Your task to perform on an android device: turn off picture-in-picture Image 0: 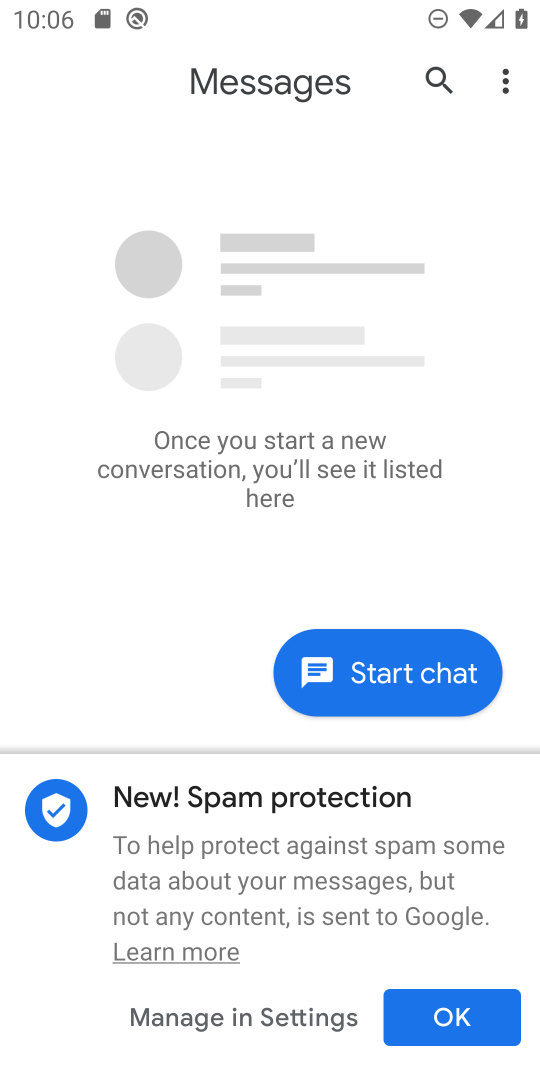
Step 0: press home button
Your task to perform on an android device: turn off picture-in-picture Image 1: 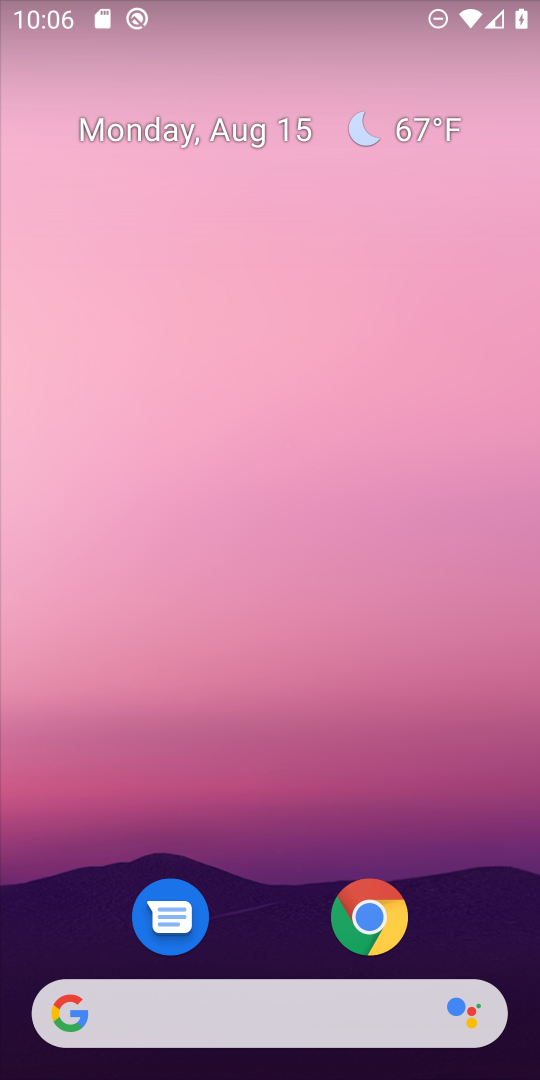
Step 1: click (398, 912)
Your task to perform on an android device: turn off picture-in-picture Image 2: 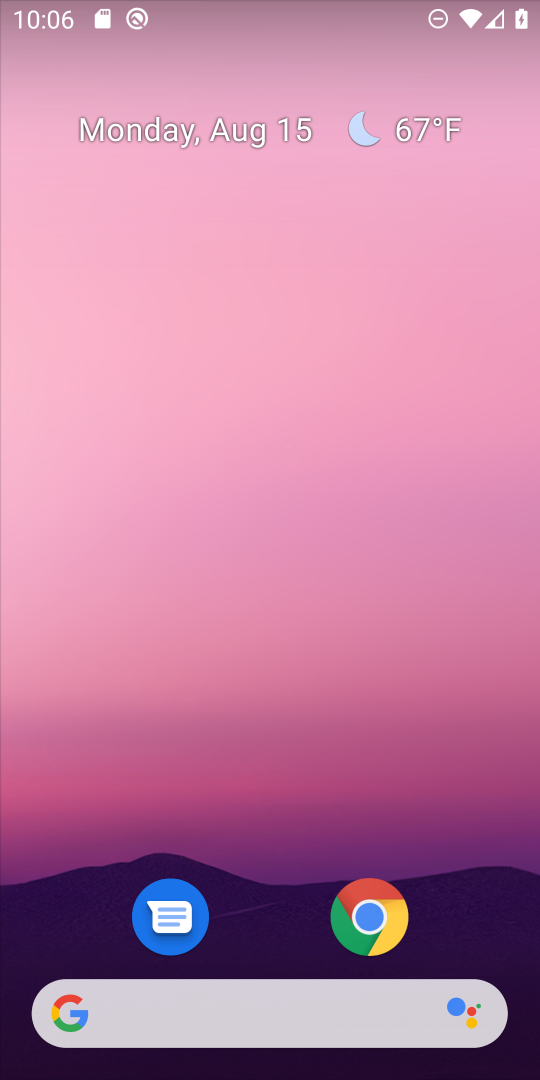
Step 2: click (398, 910)
Your task to perform on an android device: turn off picture-in-picture Image 3: 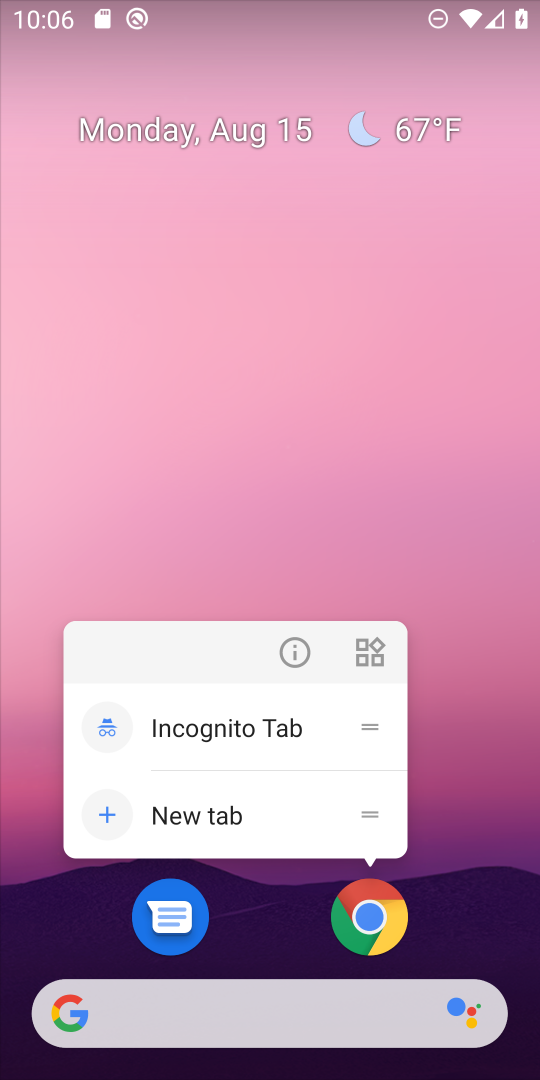
Step 3: click (292, 650)
Your task to perform on an android device: turn off picture-in-picture Image 4: 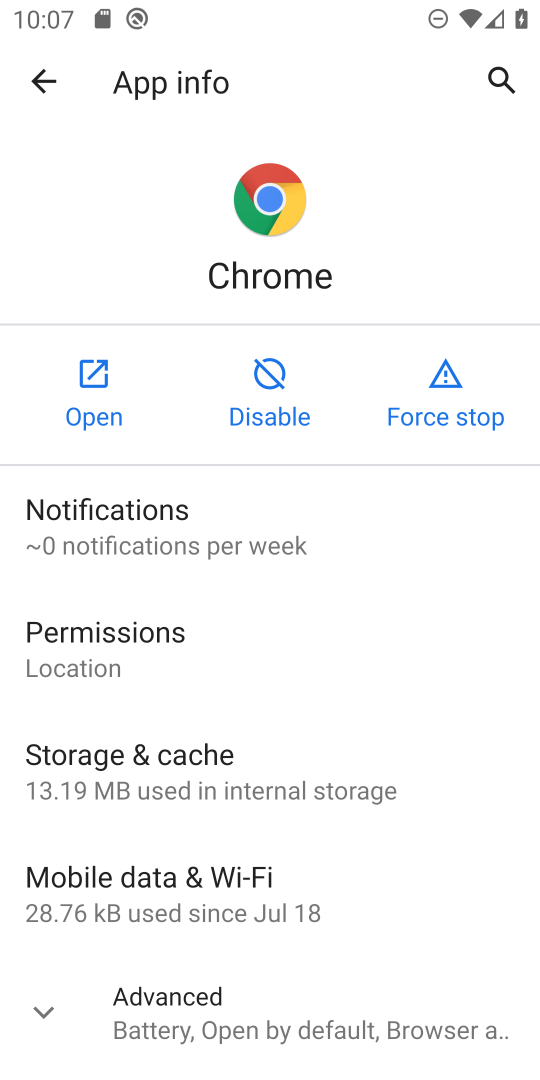
Step 4: click (40, 1006)
Your task to perform on an android device: turn off picture-in-picture Image 5: 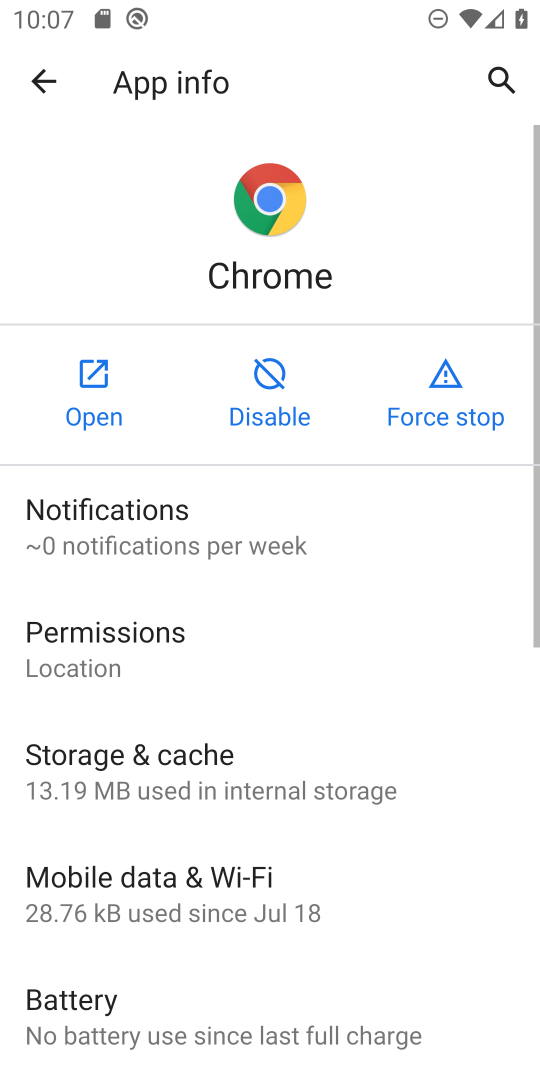
Step 5: drag from (387, 715) to (318, 52)
Your task to perform on an android device: turn off picture-in-picture Image 6: 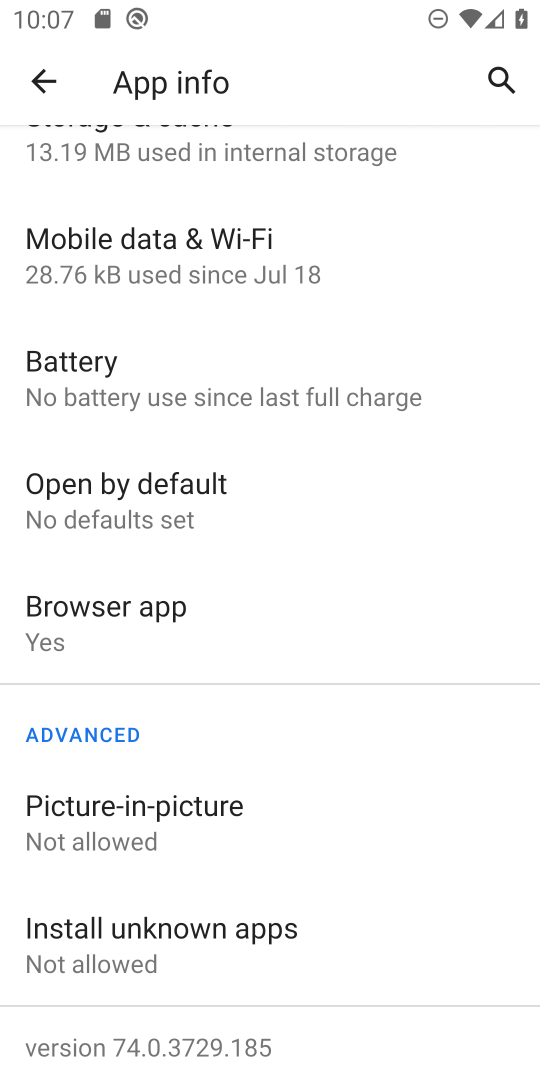
Step 6: click (210, 812)
Your task to perform on an android device: turn off picture-in-picture Image 7: 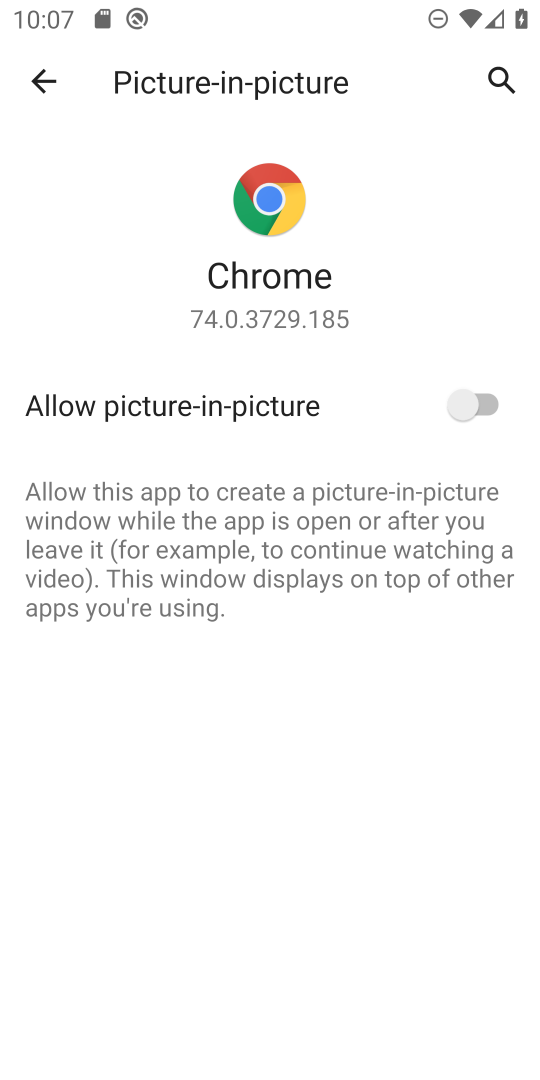
Step 7: task complete